Your task to perform on an android device: turn off smart reply in the gmail app Image 0: 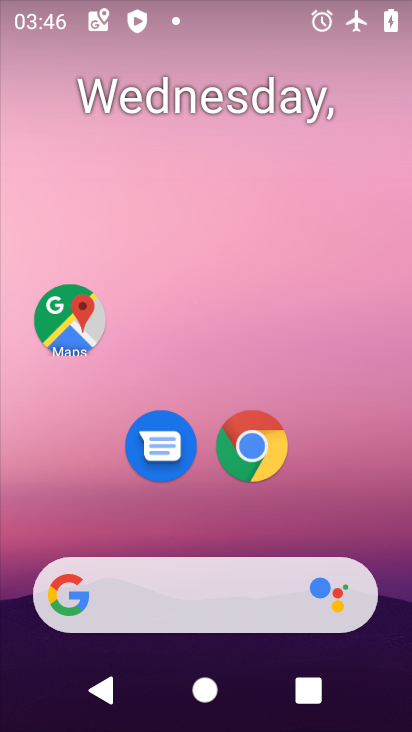
Step 0: drag from (207, 539) to (239, 178)
Your task to perform on an android device: turn off smart reply in the gmail app Image 1: 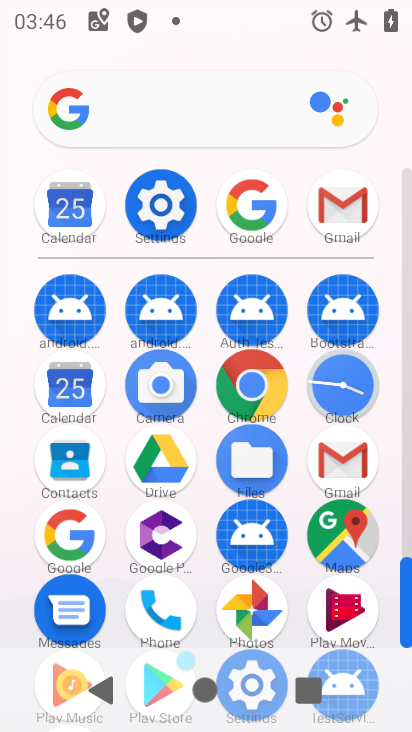
Step 1: click (331, 211)
Your task to perform on an android device: turn off smart reply in the gmail app Image 2: 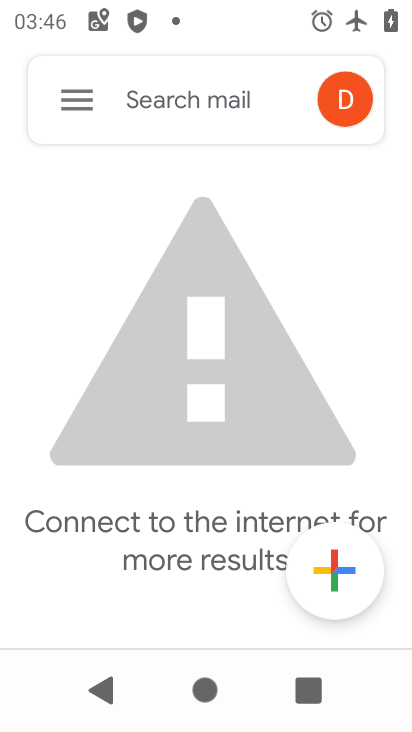
Step 2: click (74, 115)
Your task to perform on an android device: turn off smart reply in the gmail app Image 3: 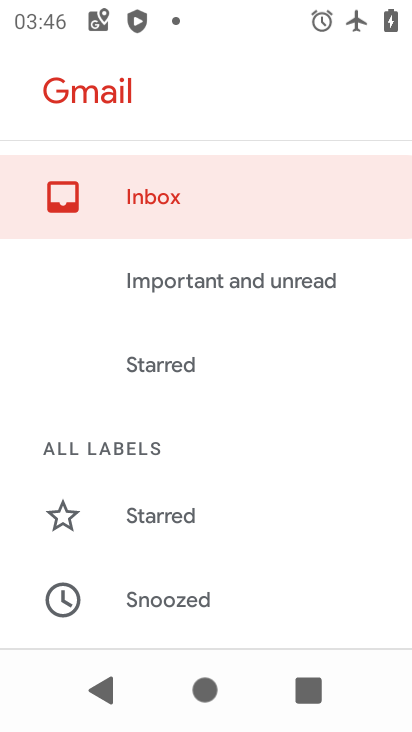
Step 3: drag from (197, 519) to (225, 130)
Your task to perform on an android device: turn off smart reply in the gmail app Image 4: 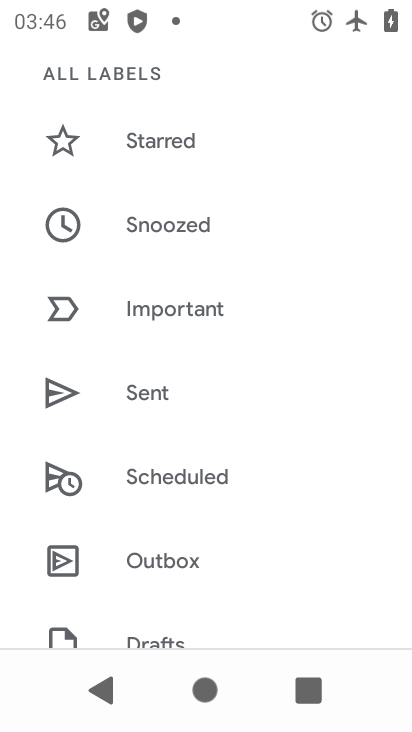
Step 4: drag from (253, 470) to (244, 177)
Your task to perform on an android device: turn off smart reply in the gmail app Image 5: 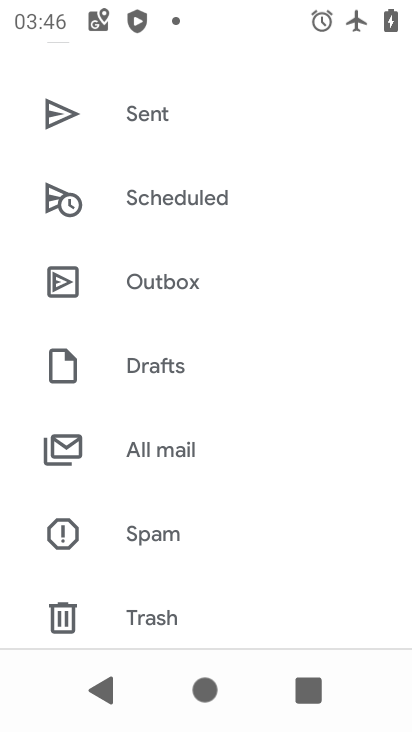
Step 5: drag from (239, 503) to (235, 180)
Your task to perform on an android device: turn off smart reply in the gmail app Image 6: 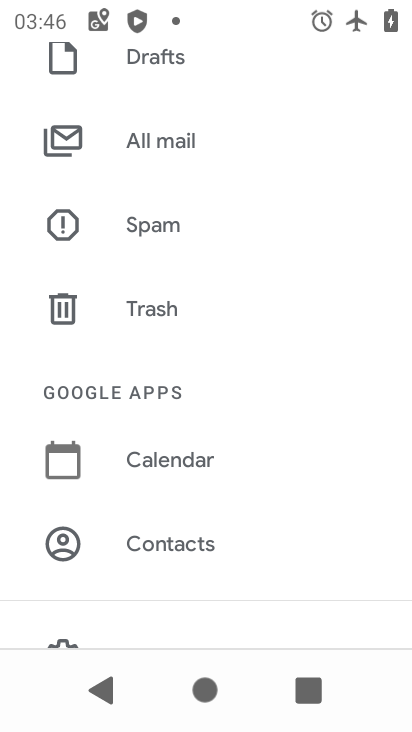
Step 6: drag from (262, 458) to (242, 137)
Your task to perform on an android device: turn off smart reply in the gmail app Image 7: 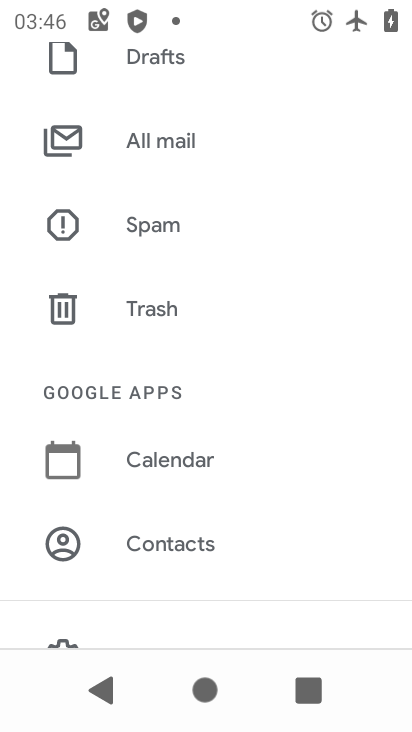
Step 7: drag from (240, 530) to (241, 166)
Your task to perform on an android device: turn off smart reply in the gmail app Image 8: 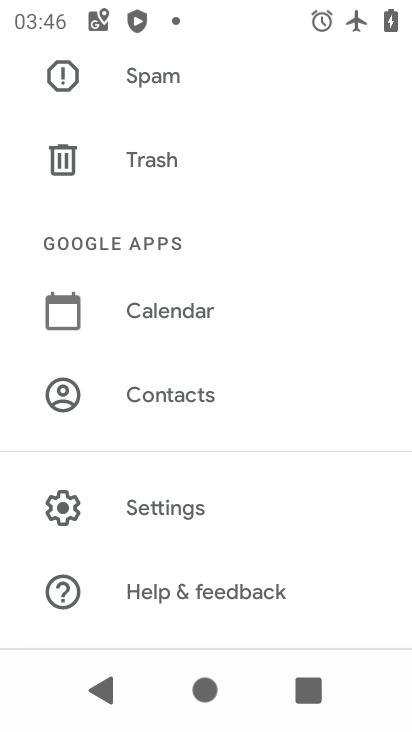
Step 8: click (201, 493)
Your task to perform on an android device: turn off smart reply in the gmail app Image 9: 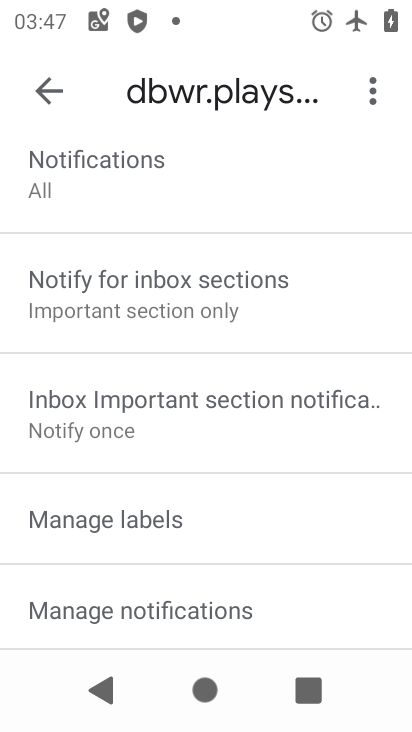
Step 9: task complete